Your task to perform on an android device: Open settings on Google Maps Image 0: 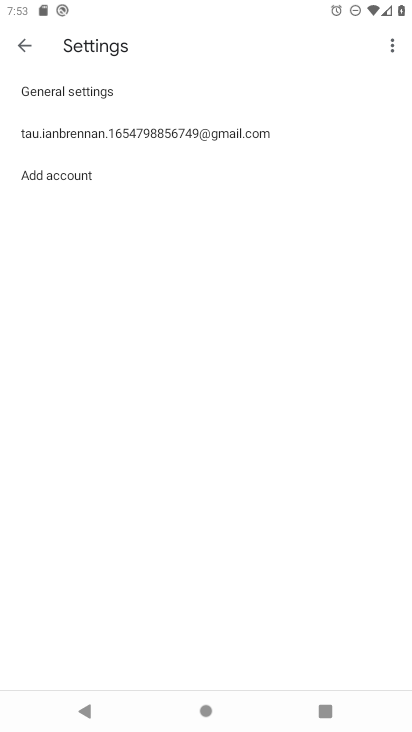
Step 0: press home button
Your task to perform on an android device: Open settings on Google Maps Image 1: 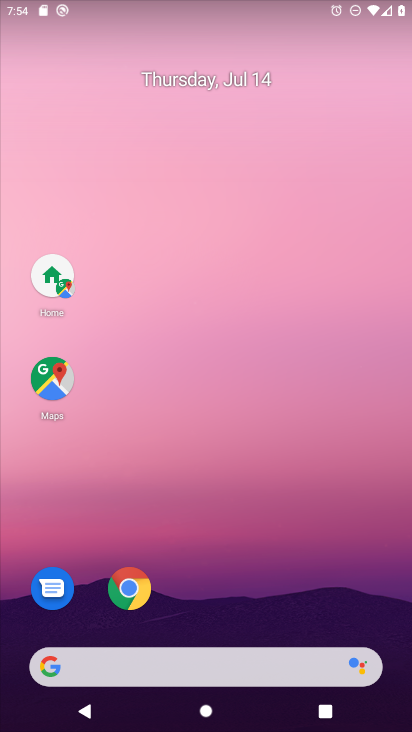
Step 1: click (59, 383)
Your task to perform on an android device: Open settings on Google Maps Image 2: 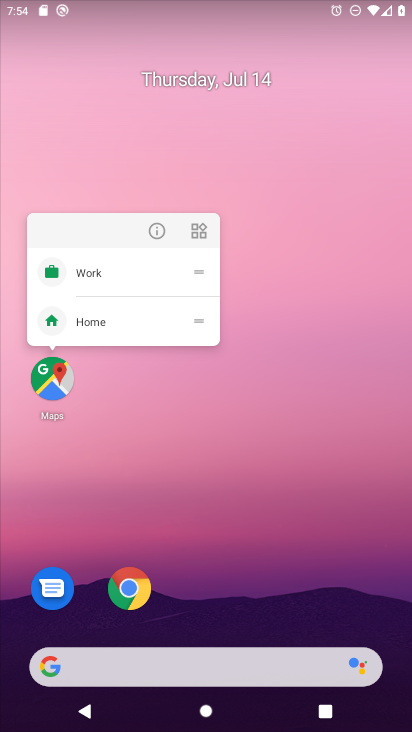
Step 2: click (57, 387)
Your task to perform on an android device: Open settings on Google Maps Image 3: 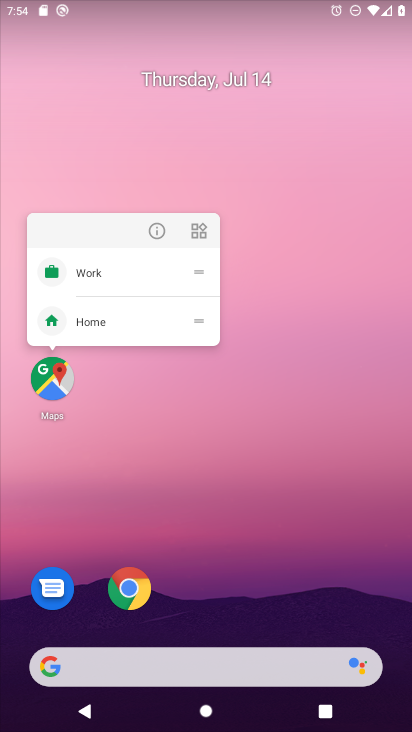
Step 3: click (58, 384)
Your task to perform on an android device: Open settings on Google Maps Image 4: 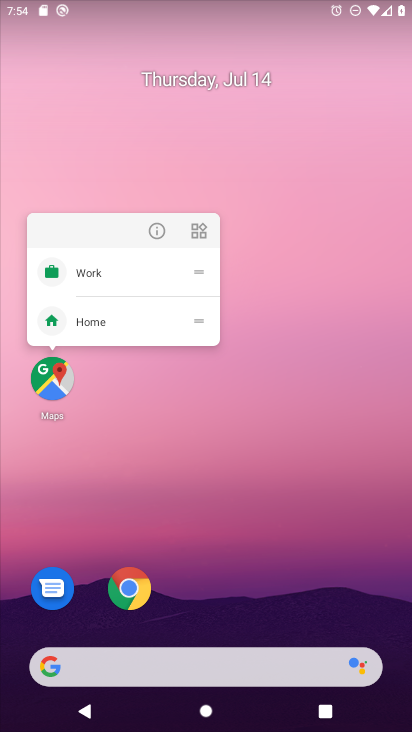
Step 4: task complete